Your task to perform on an android device: search for starred emails in the gmail app Image 0: 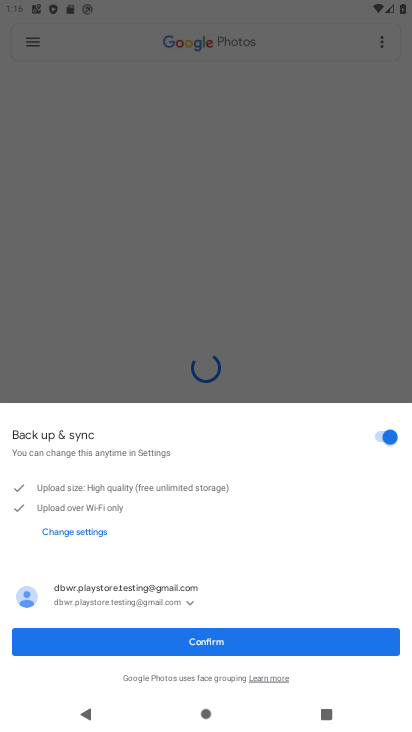
Step 0: press home button
Your task to perform on an android device: search for starred emails in the gmail app Image 1: 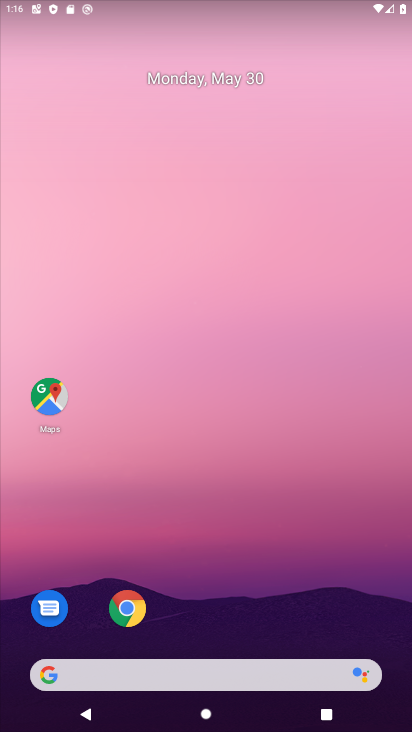
Step 1: drag from (216, 610) to (189, 236)
Your task to perform on an android device: search for starred emails in the gmail app Image 2: 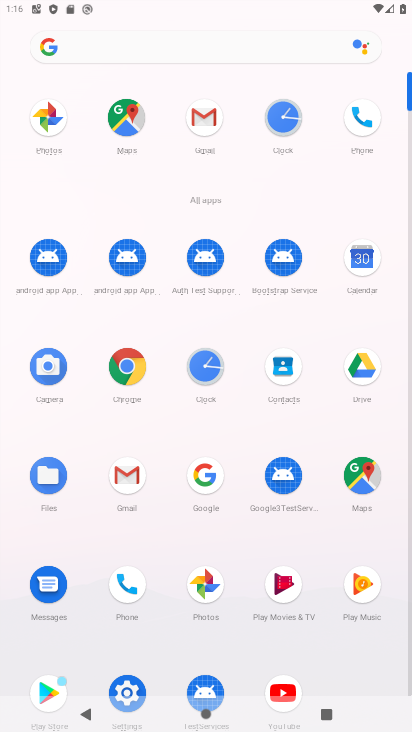
Step 2: click (117, 473)
Your task to perform on an android device: search for starred emails in the gmail app Image 3: 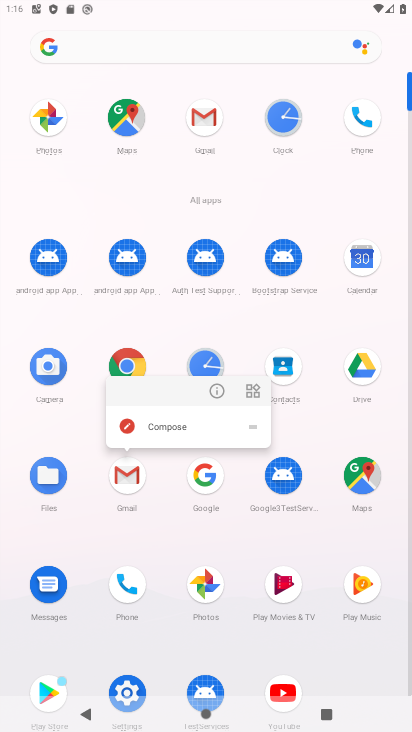
Step 3: click (130, 464)
Your task to perform on an android device: search for starred emails in the gmail app Image 4: 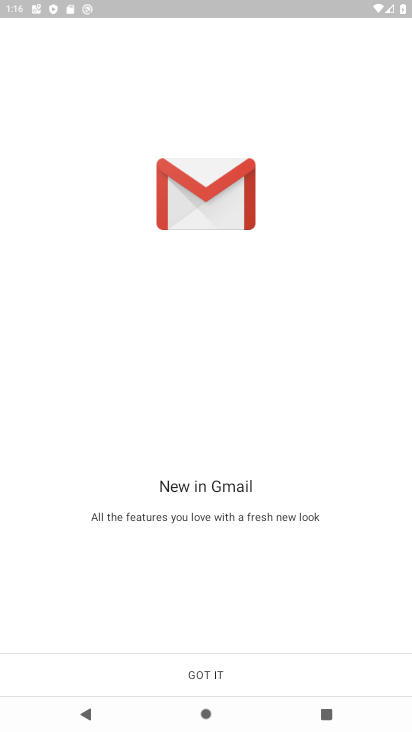
Step 4: click (215, 675)
Your task to perform on an android device: search for starred emails in the gmail app Image 5: 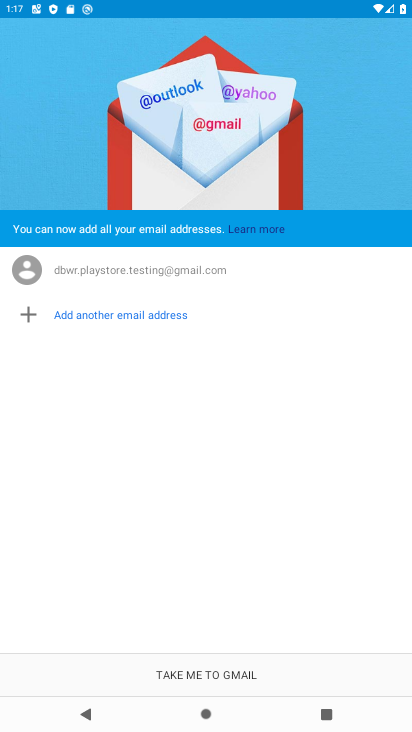
Step 5: click (215, 671)
Your task to perform on an android device: search for starred emails in the gmail app Image 6: 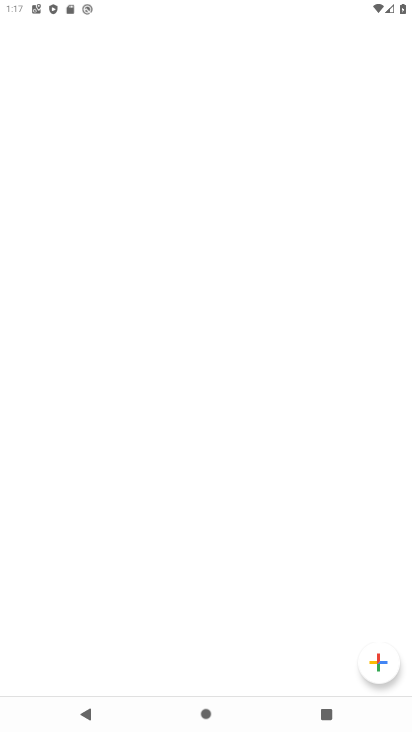
Step 6: click (215, 671)
Your task to perform on an android device: search for starred emails in the gmail app Image 7: 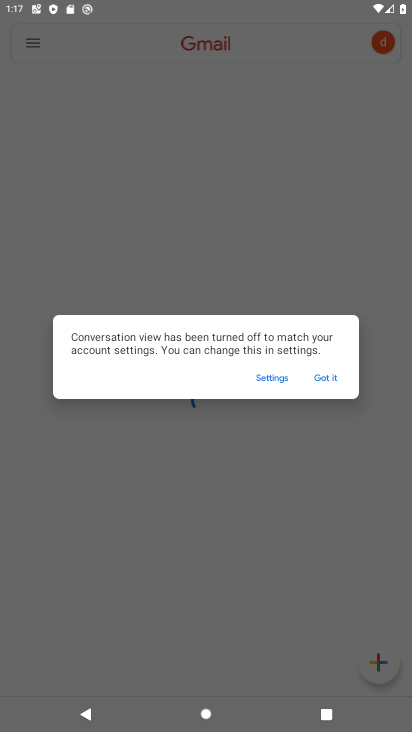
Step 7: click (322, 377)
Your task to perform on an android device: search for starred emails in the gmail app Image 8: 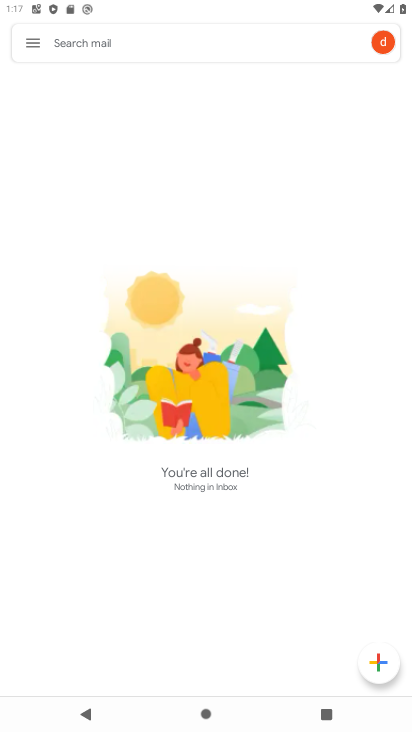
Step 8: click (23, 39)
Your task to perform on an android device: search for starred emails in the gmail app Image 9: 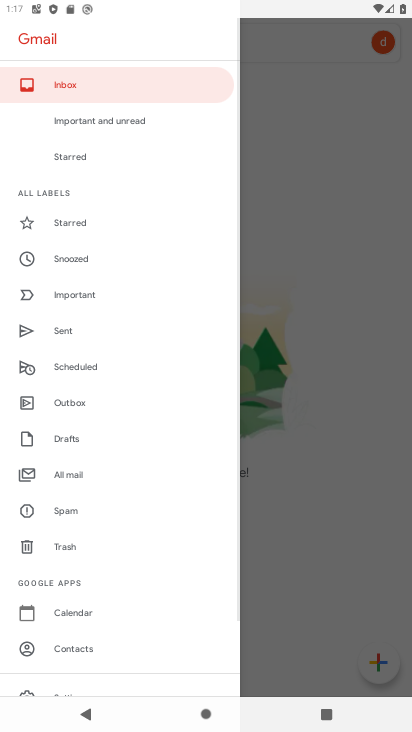
Step 9: click (97, 218)
Your task to perform on an android device: search for starred emails in the gmail app Image 10: 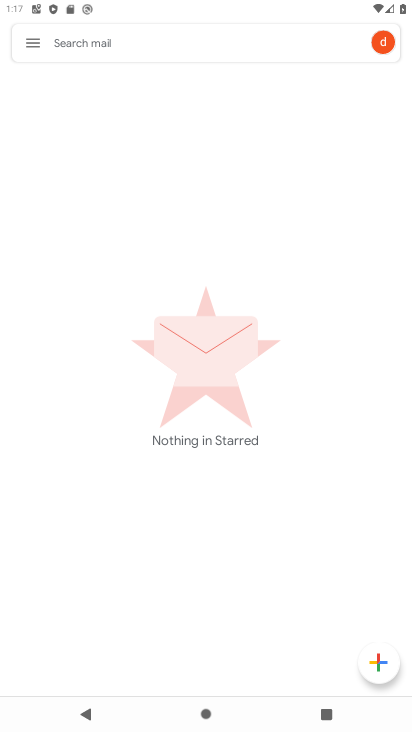
Step 10: task complete